Your task to perform on an android device: find snoozed emails in the gmail app Image 0: 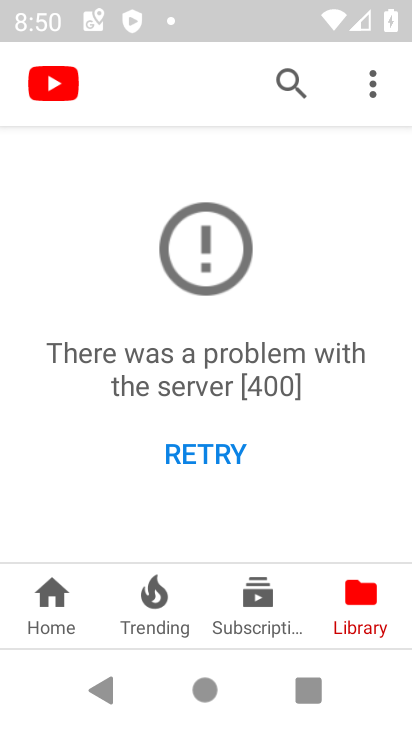
Step 0: press home button
Your task to perform on an android device: find snoozed emails in the gmail app Image 1: 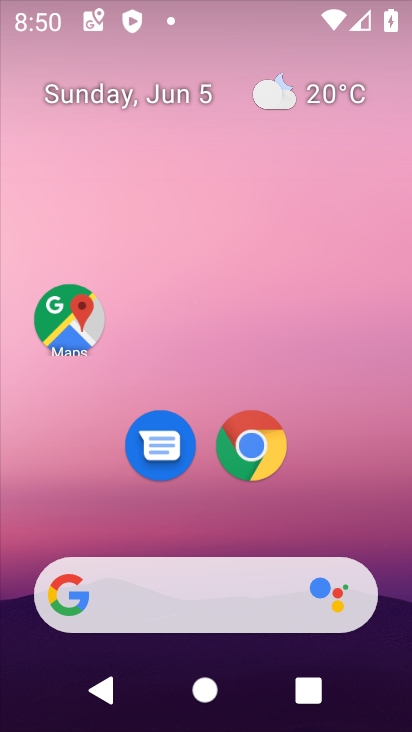
Step 1: drag from (224, 604) to (278, 3)
Your task to perform on an android device: find snoozed emails in the gmail app Image 2: 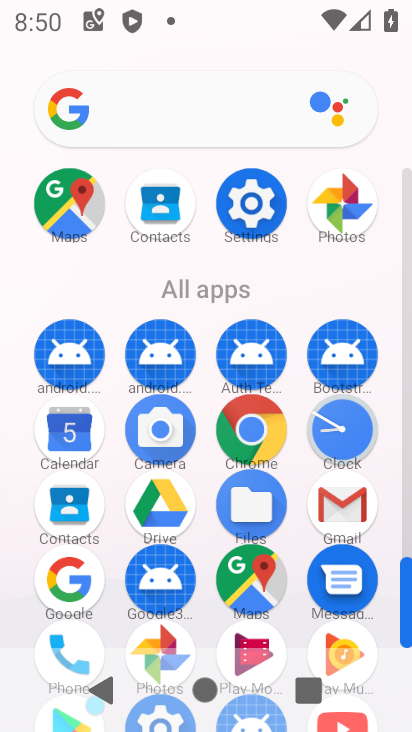
Step 2: click (355, 529)
Your task to perform on an android device: find snoozed emails in the gmail app Image 3: 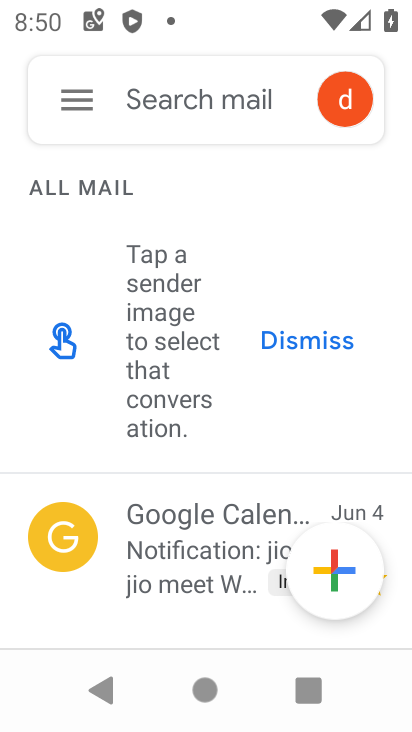
Step 3: click (82, 93)
Your task to perform on an android device: find snoozed emails in the gmail app Image 4: 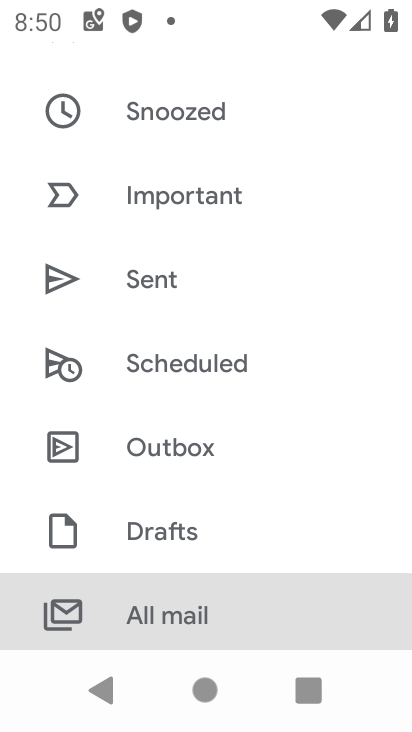
Step 4: drag from (216, 589) to (259, 652)
Your task to perform on an android device: find snoozed emails in the gmail app Image 5: 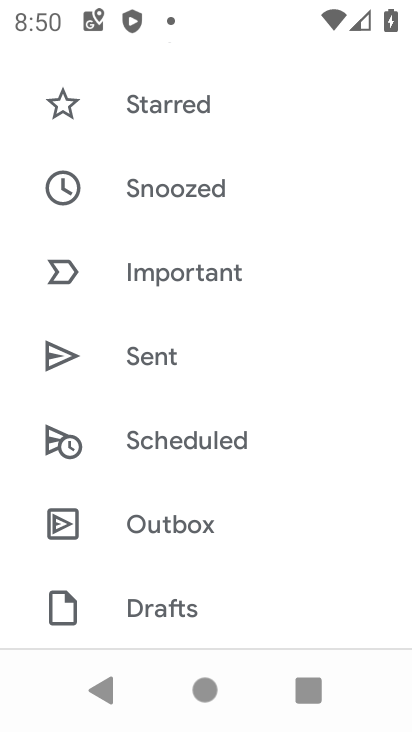
Step 5: drag from (252, 198) to (250, 370)
Your task to perform on an android device: find snoozed emails in the gmail app Image 6: 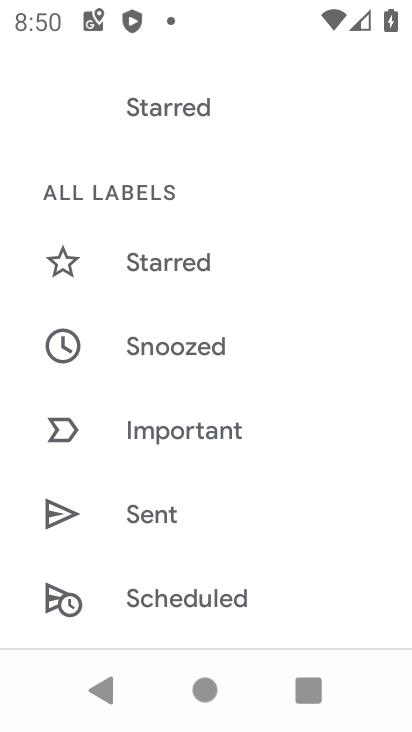
Step 6: click (218, 350)
Your task to perform on an android device: find snoozed emails in the gmail app Image 7: 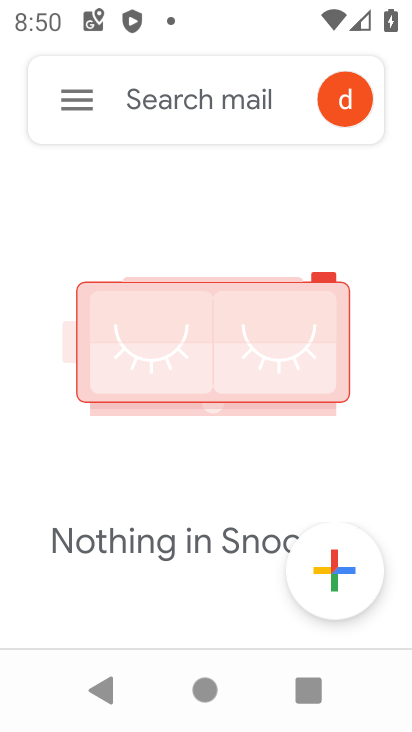
Step 7: task complete